Your task to perform on an android device: turn on wifi Image 0: 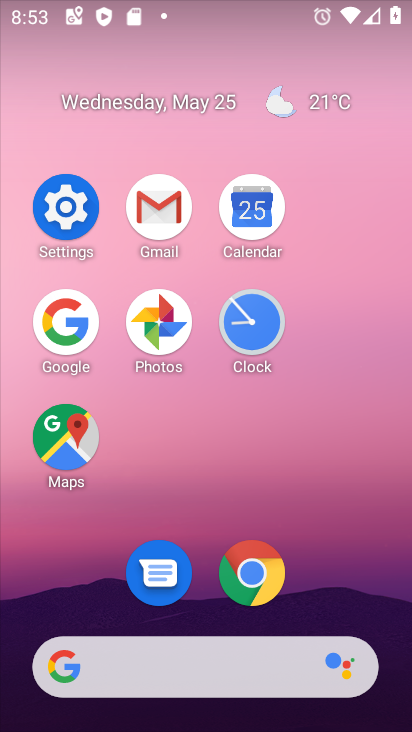
Step 0: click (82, 205)
Your task to perform on an android device: turn on wifi Image 1: 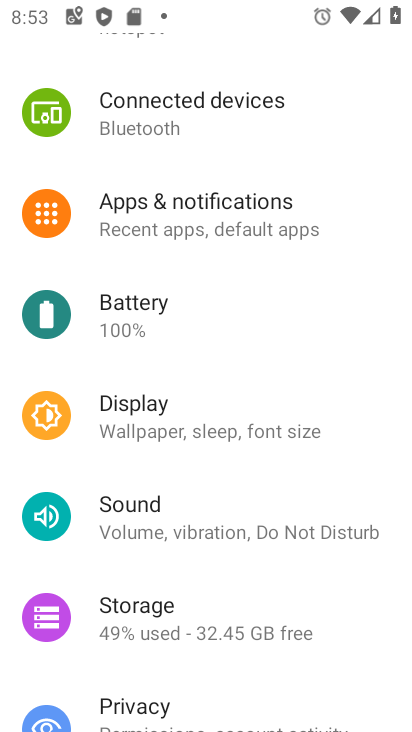
Step 1: drag from (302, 141) to (400, 684)
Your task to perform on an android device: turn on wifi Image 2: 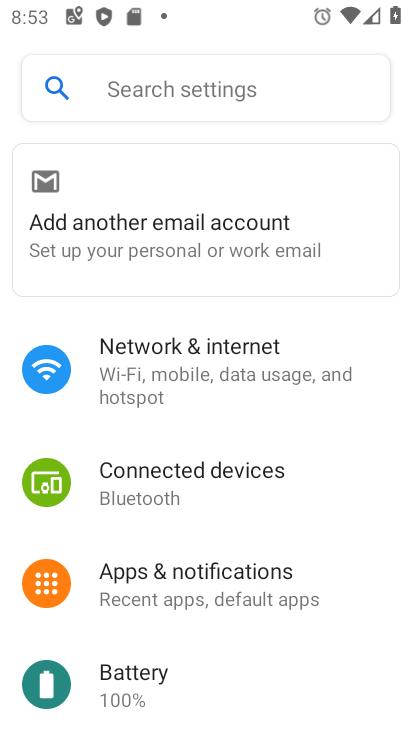
Step 2: click (266, 386)
Your task to perform on an android device: turn on wifi Image 3: 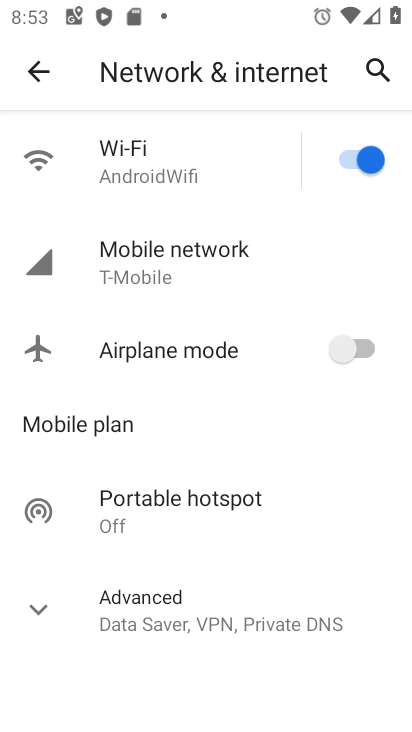
Step 3: task complete